Your task to perform on an android device: install app "Grab" Image 0: 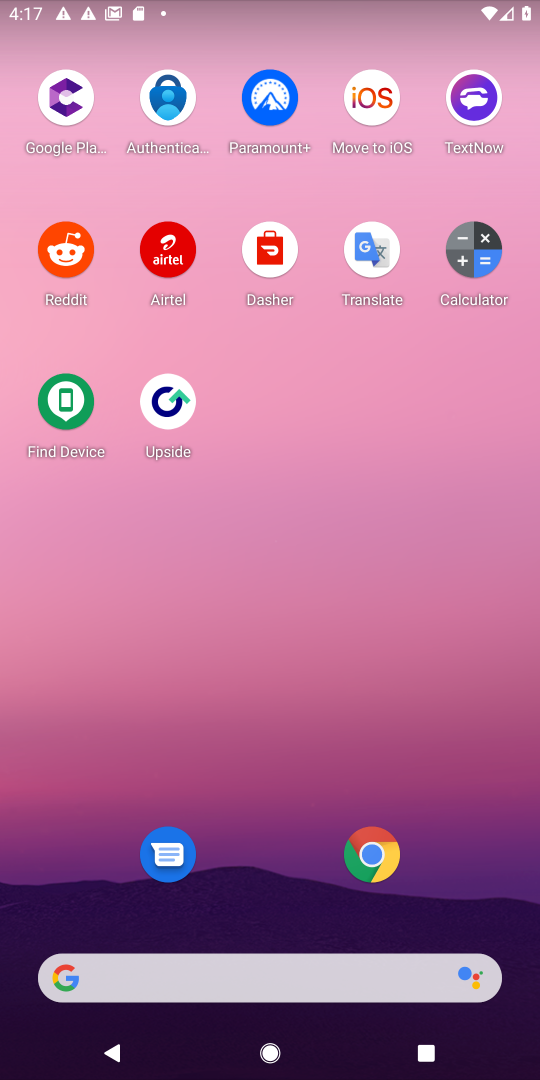
Step 0: drag from (279, 916) to (265, 156)
Your task to perform on an android device: install app "Grab" Image 1: 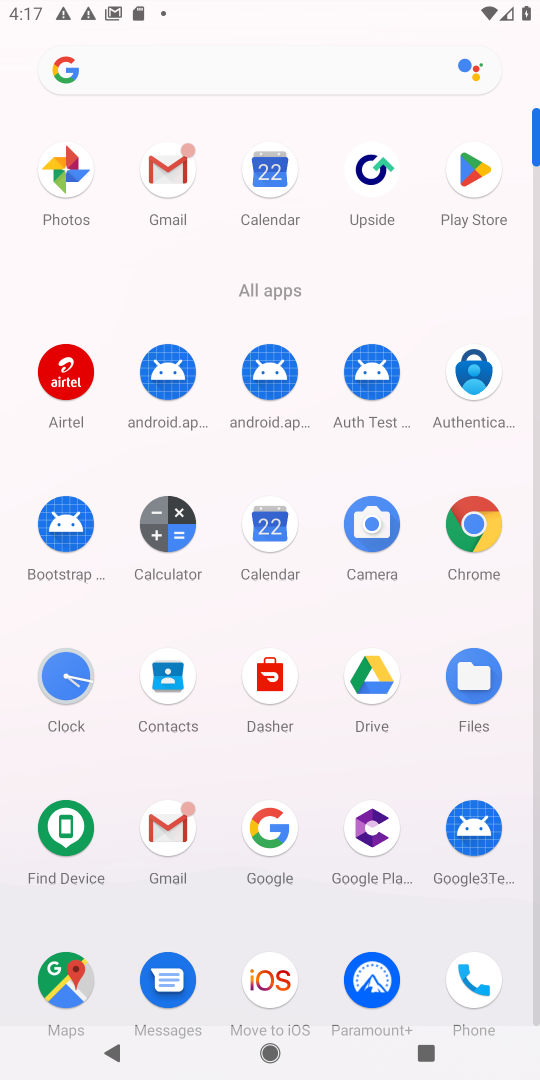
Step 1: click (465, 163)
Your task to perform on an android device: install app "Grab" Image 2: 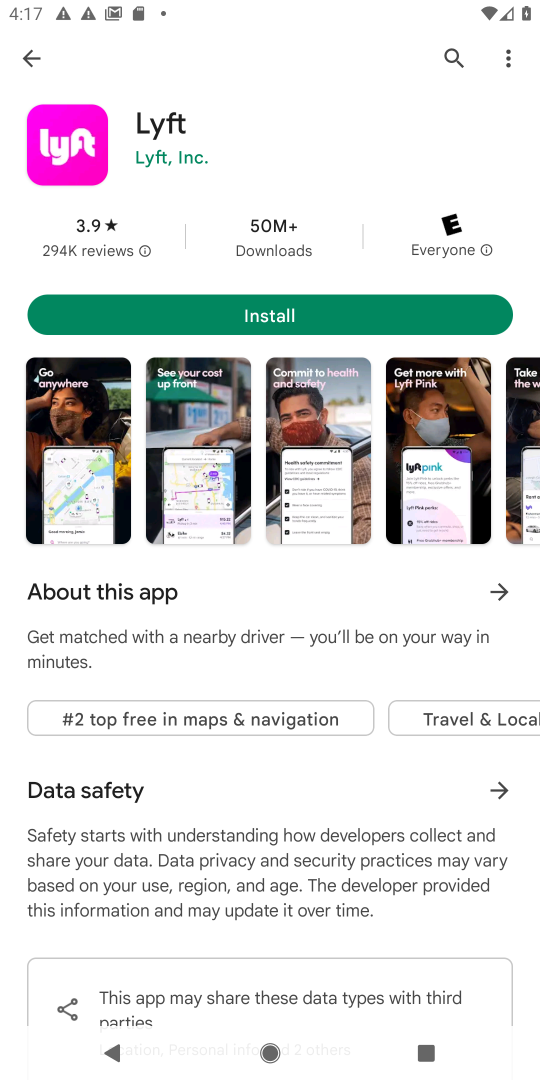
Step 2: click (443, 42)
Your task to perform on an android device: install app "Grab" Image 3: 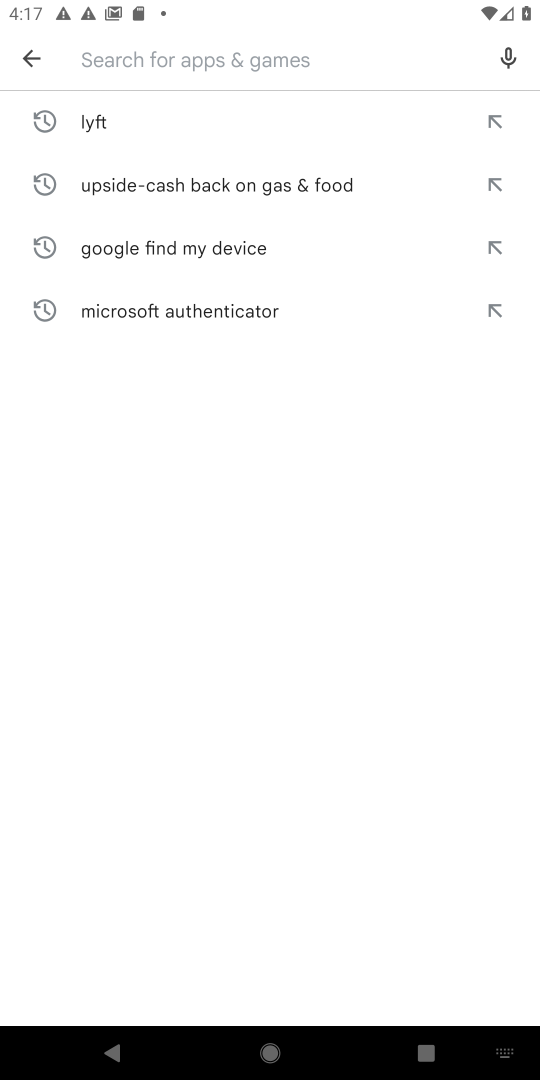
Step 3: type "Grab"
Your task to perform on an android device: install app "Grab" Image 4: 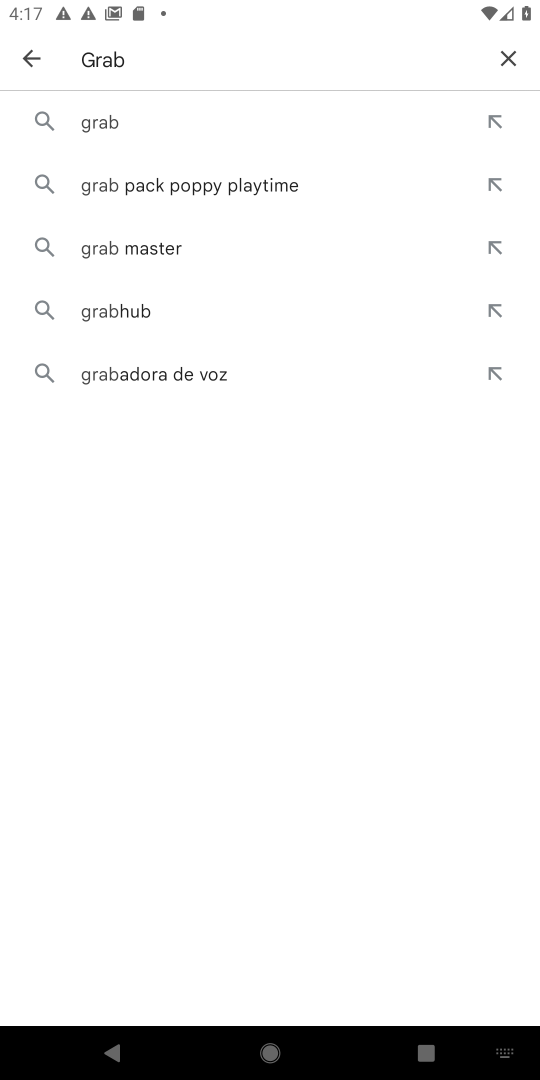
Step 4: click (103, 125)
Your task to perform on an android device: install app "Grab" Image 5: 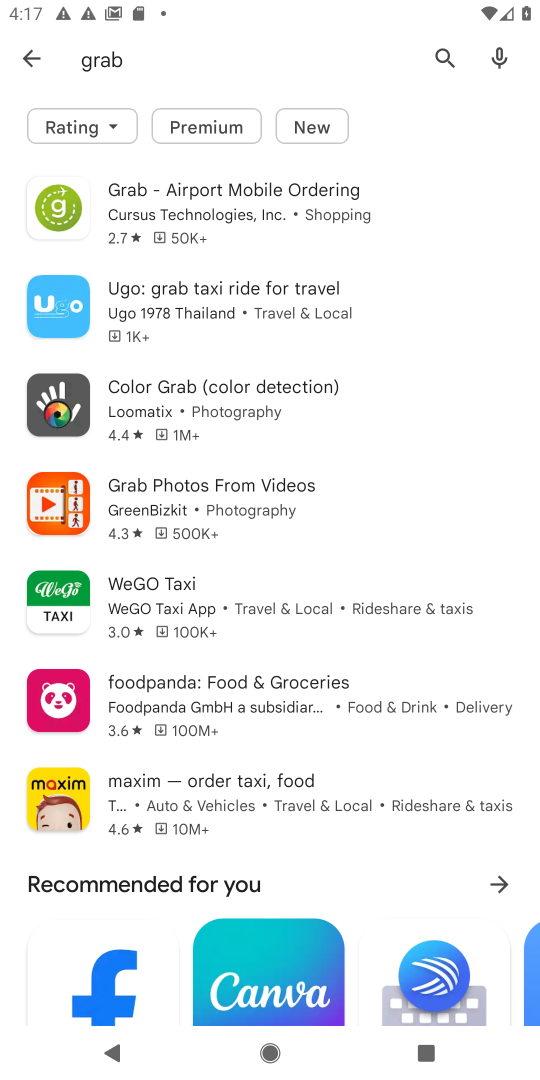
Step 5: click (193, 187)
Your task to perform on an android device: install app "Grab" Image 6: 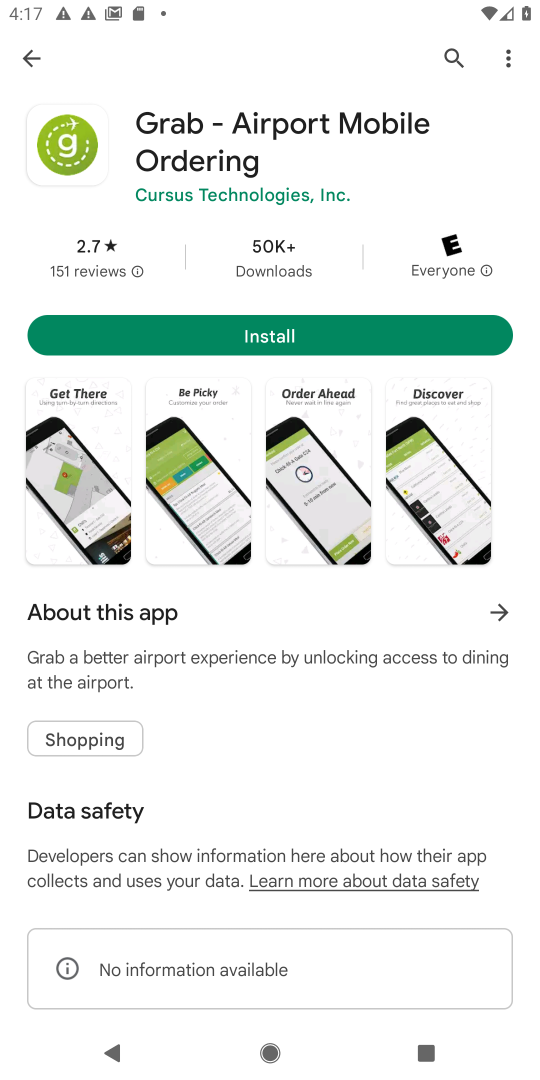
Step 6: click (299, 337)
Your task to perform on an android device: install app "Grab" Image 7: 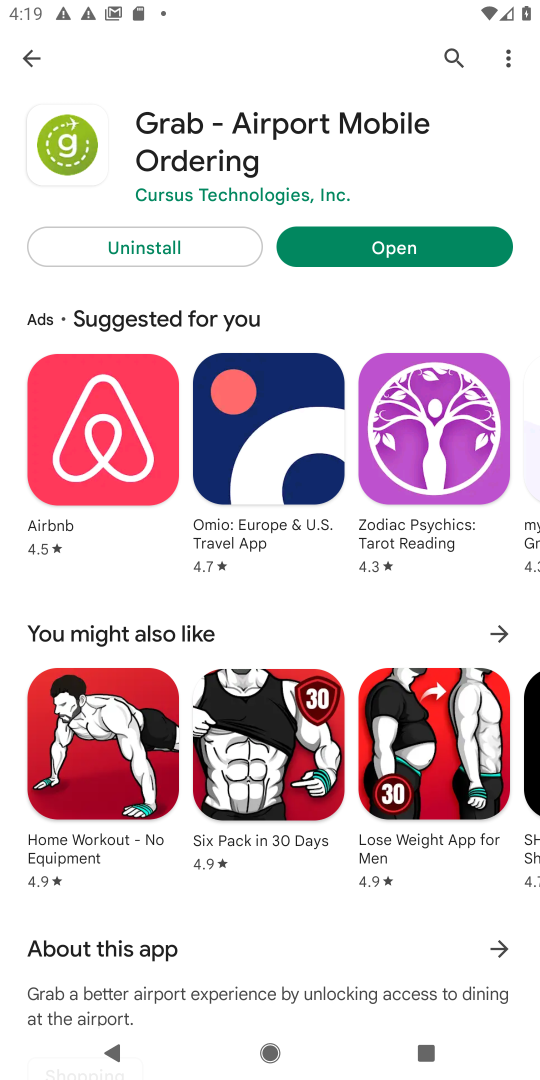
Step 7: task complete